Your task to perform on an android device: turn off translation in the chrome app Image 0: 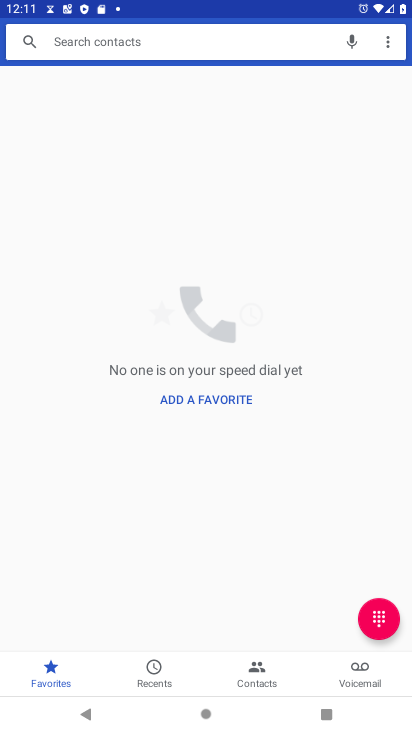
Step 0: press home button
Your task to perform on an android device: turn off translation in the chrome app Image 1: 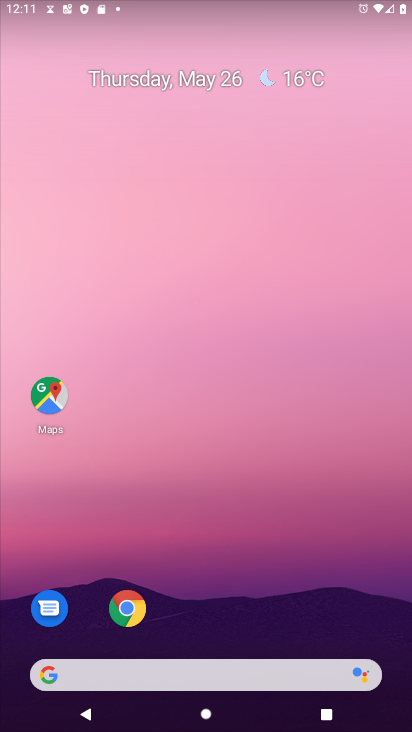
Step 1: click (131, 606)
Your task to perform on an android device: turn off translation in the chrome app Image 2: 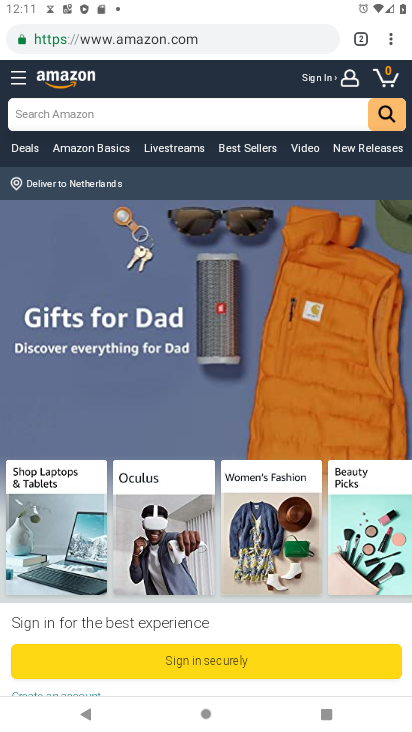
Step 2: click (392, 43)
Your task to perform on an android device: turn off translation in the chrome app Image 3: 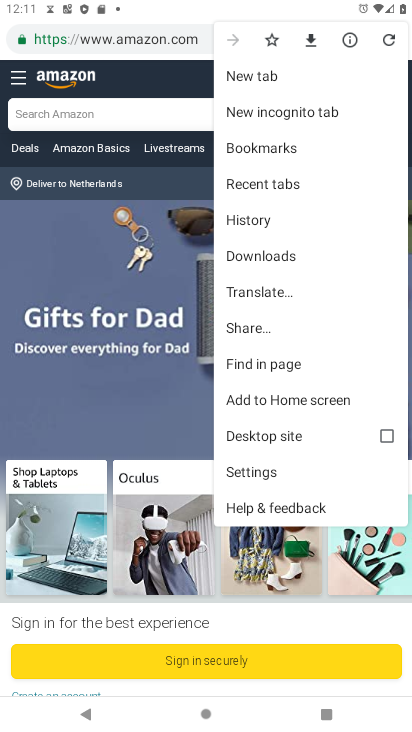
Step 3: click (247, 473)
Your task to perform on an android device: turn off translation in the chrome app Image 4: 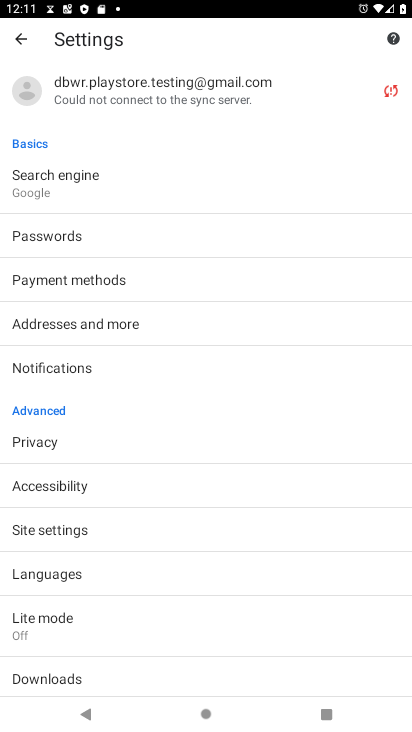
Step 4: click (44, 569)
Your task to perform on an android device: turn off translation in the chrome app Image 5: 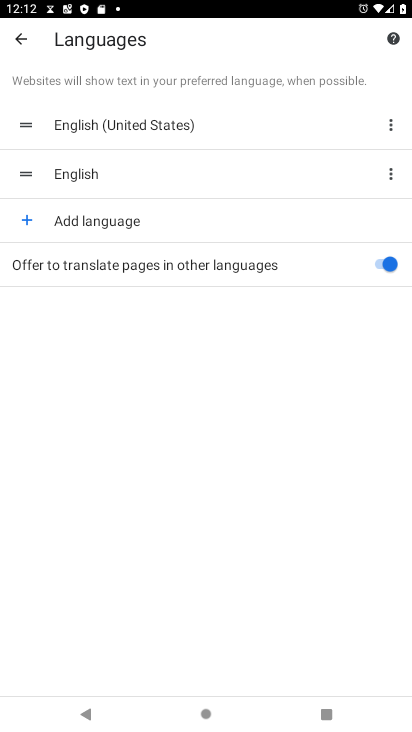
Step 5: click (382, 259)
Your task to perform on an android device: turn off translation in the chrome app Image 6: 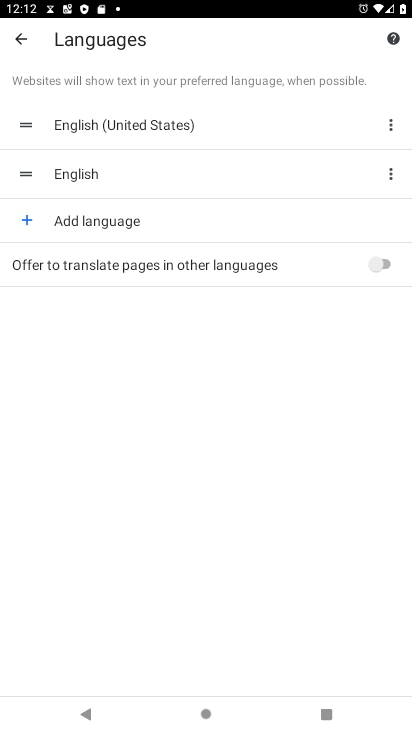
Step 6: task complete